Your task to perform on an android device: turn on location history Image 0: 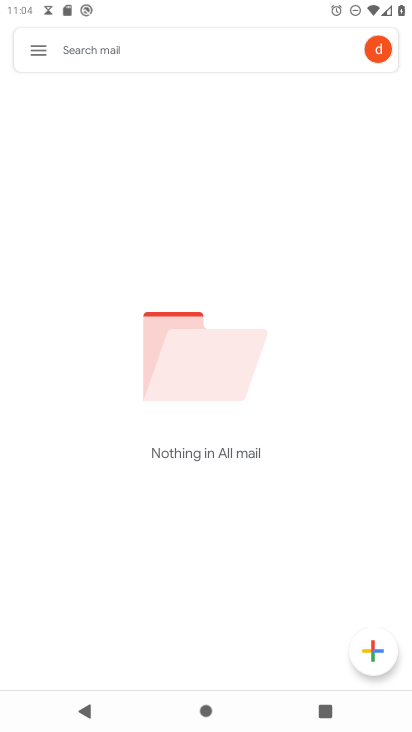
Step 0: press back button
Your task to perform on an android device: turn on location history Image 1: 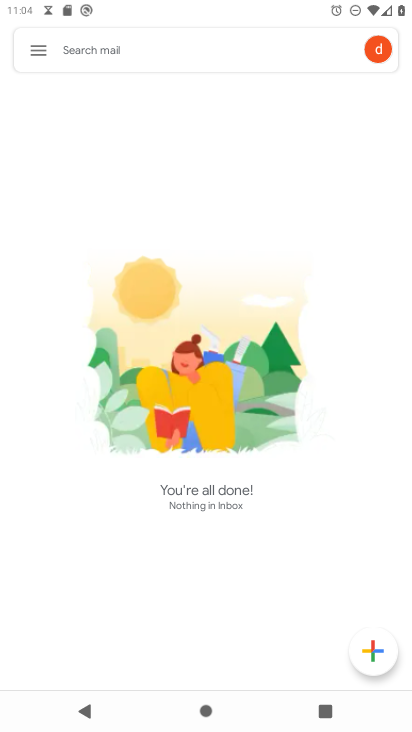
Step 1: press back button
Your task to perform on an android device: turn on location history Image 2: 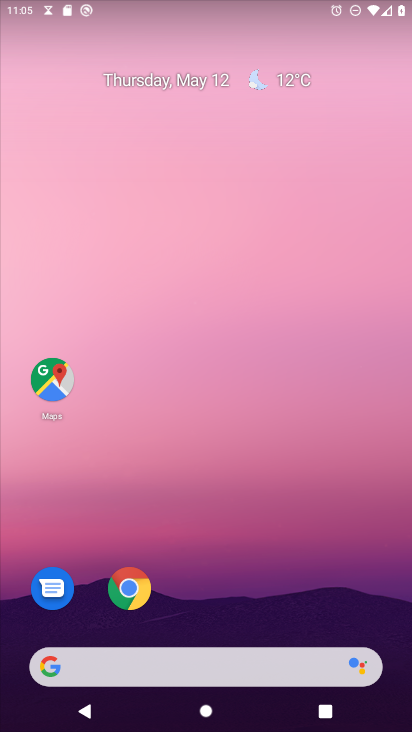
Step 2: drag from (212, 580) to (157, 98)
Your task to perform on an android device: turn on location history Image 3: 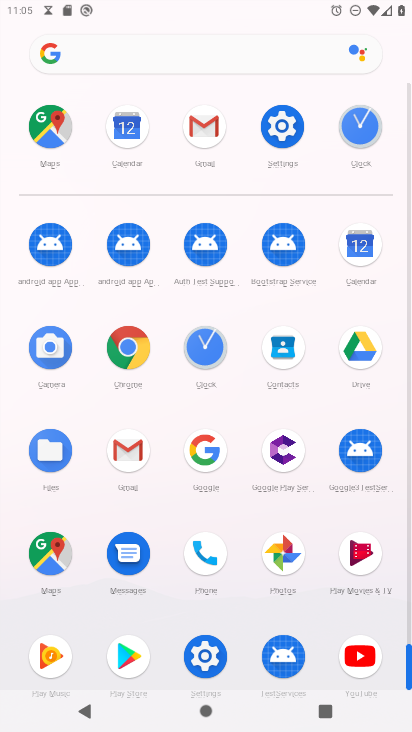
Step 3: click (282, 127)
Your task to perform on an android device: turn on location history Image 4: 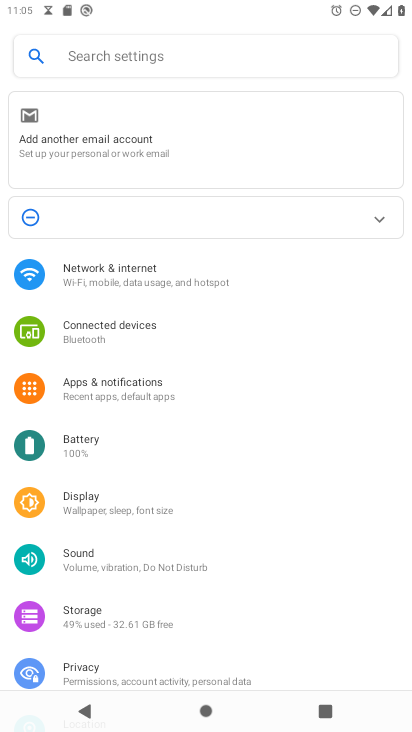
Step 4: drag from (118, 607) to (216, 484)
Your task to perform on an android device: turn on location history Image 5: 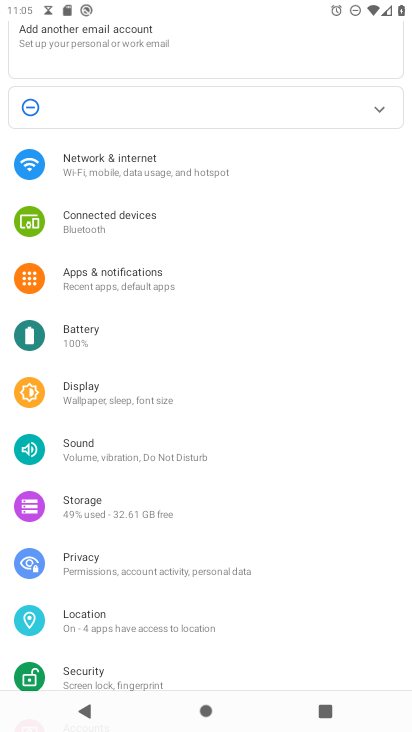
Step 5: drag from (107, 592) to (190, 476)
Your task to perform on an android device: turn on location history Image 6: 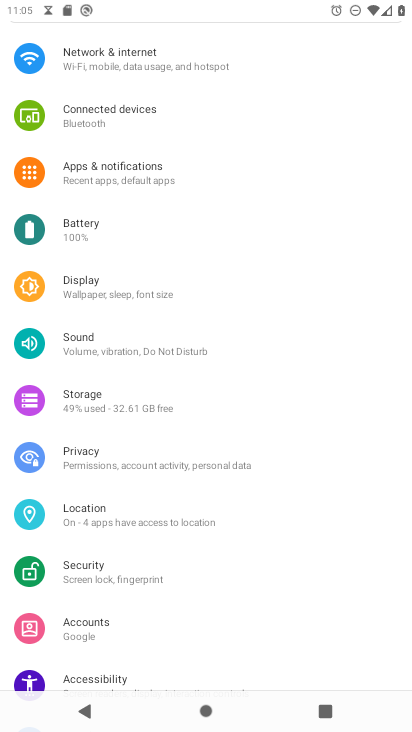
Step 6: click (136, 521)
Your task to perform on an android device: turn on location history Image 7: 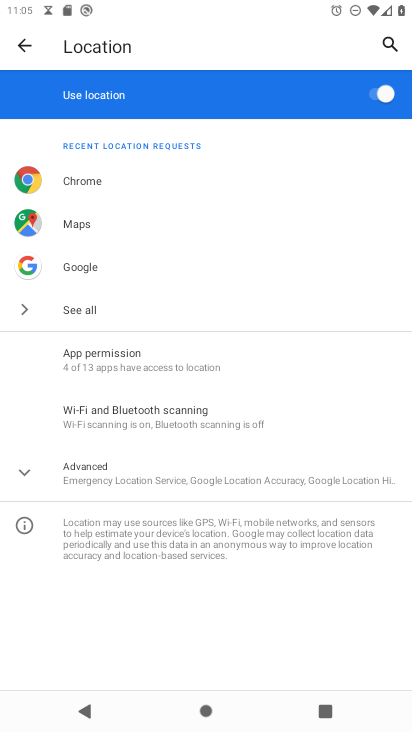
Step 7: click (119, 471)
Your task to perform on an android device: turn on location history Image 8: 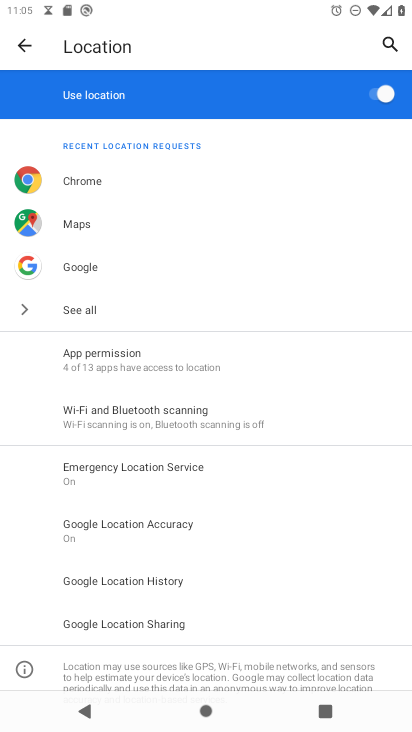
Step 8: drag from (158, 539) to (234, 445)
Your task to perform on an android device: turn on location history Image 9: 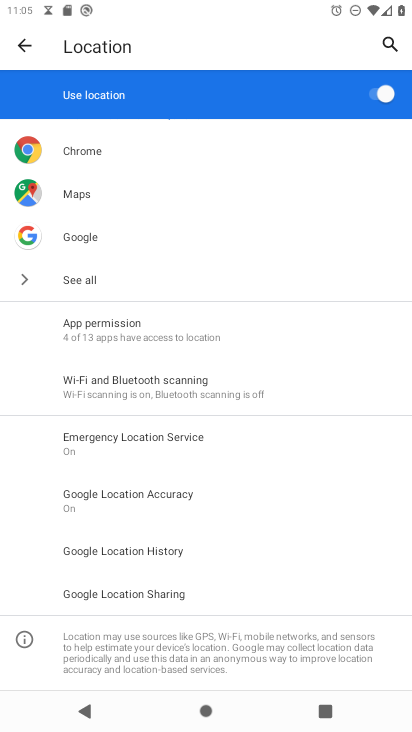
Step 9: click (147, 548)
Your task to perform on an android device: turn on location history Image 10: 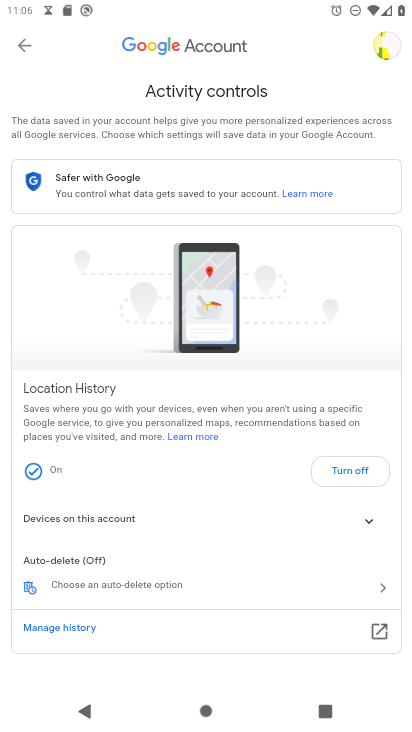
Step 10: task complete